Your task to perform on an android device: open chrome privacy settings Image 0: 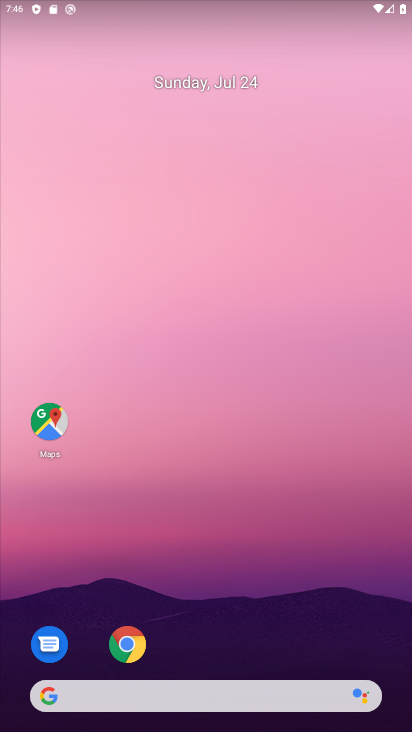
Step 0: click (128, 635)
Your task to perform on an android device: open chrome privacy settings Image 1: 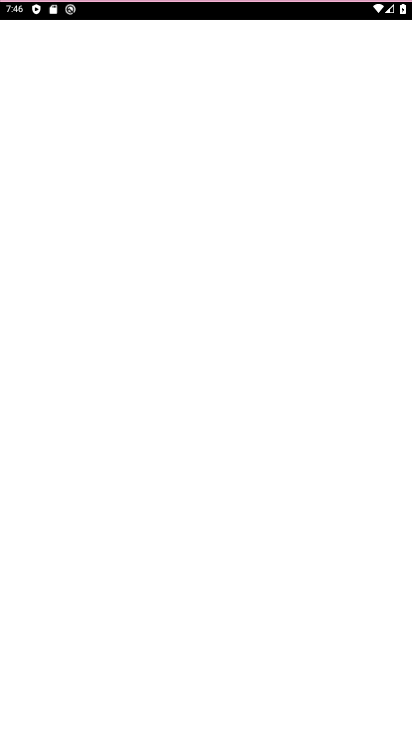
Step 1: click (133, 636)
Your task to perform on an android device: open chrome privacy settings Image 2: 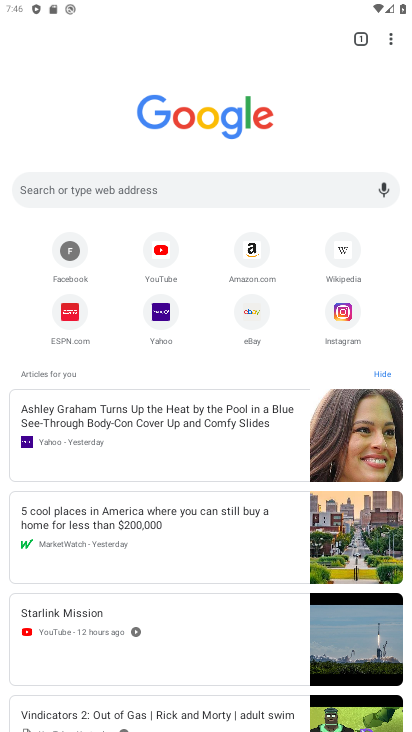
Step 2: click (387, 35)
Your task to perform on an android device: open chrome privacy settings Image 3: 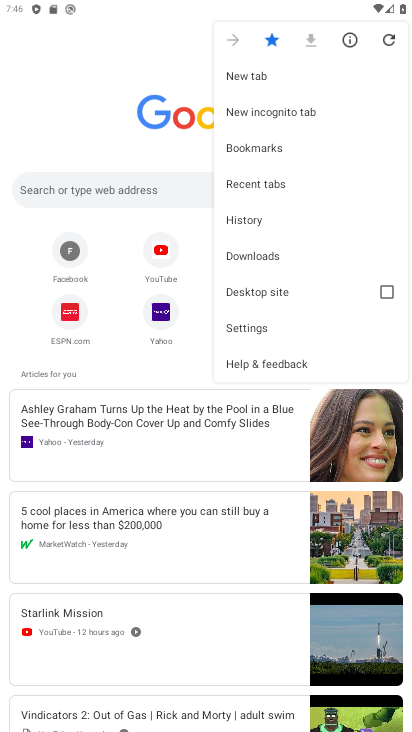
Step 3: click (254, 329)
Your task to perform on an android device: open chrome privacy settings Image 4: 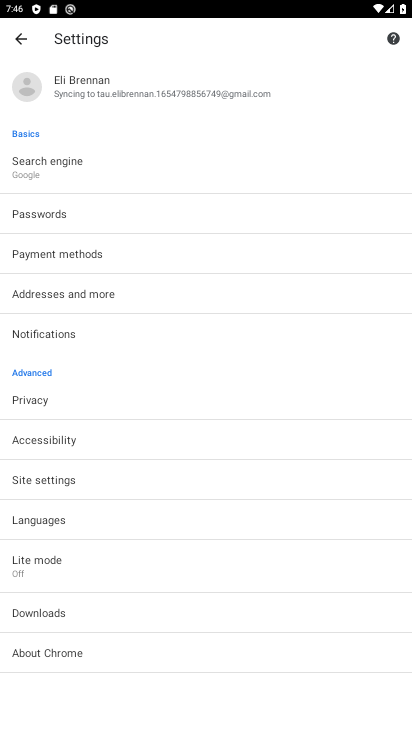
Step 4: click (44, 399)
Your task to perform on an android device: open chrome privacy settings Image 5: 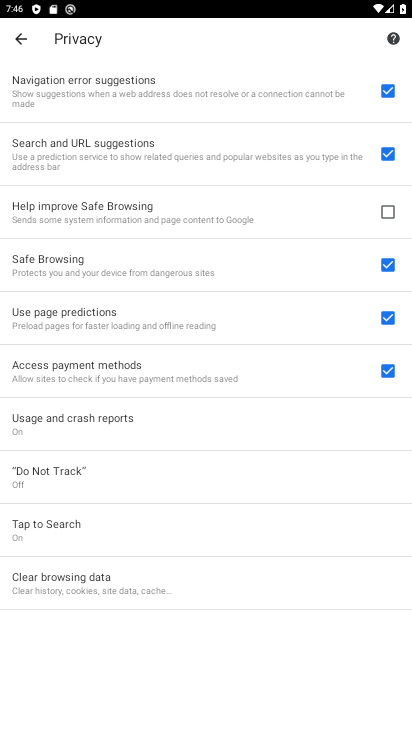
Step 5: task complete